Your task to perform on an android device: Check the news Image 0: 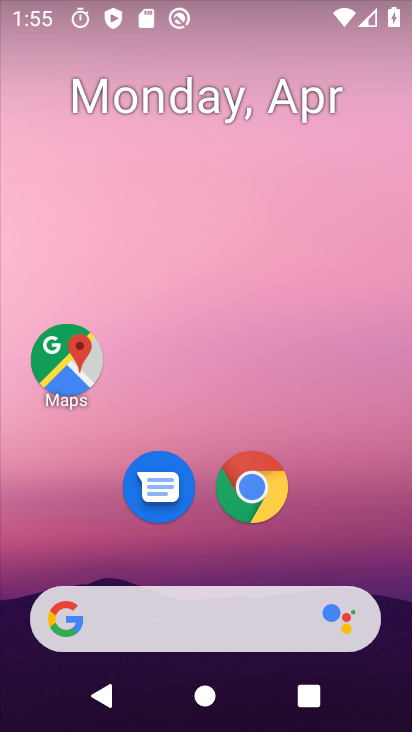
Step 0: drag from (270, 633) to (247, 162)
Your task to perform on an android device: Check the news Image 1: 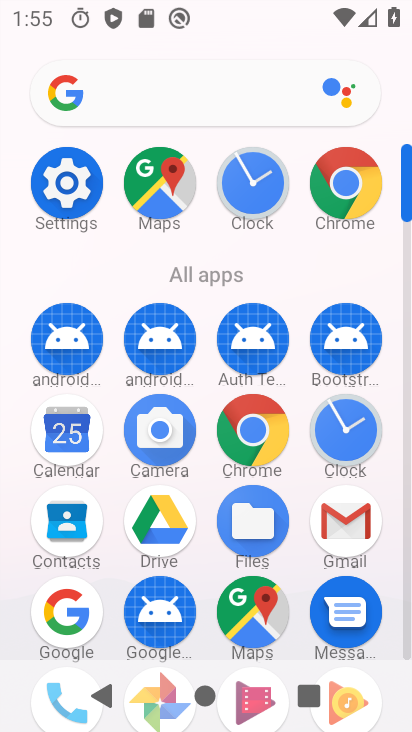
Step 1: click (183, 101)
Your task to perform on an android device: Check the news Image 2: 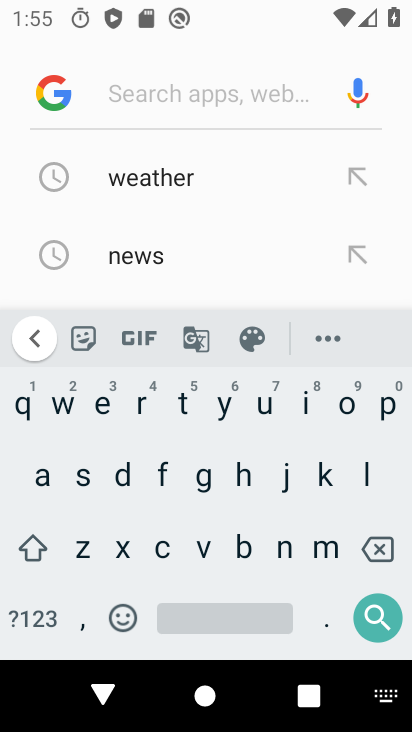
Step 2: click (155, 251)
Your task to perform on an android device: Check the news Image 3: 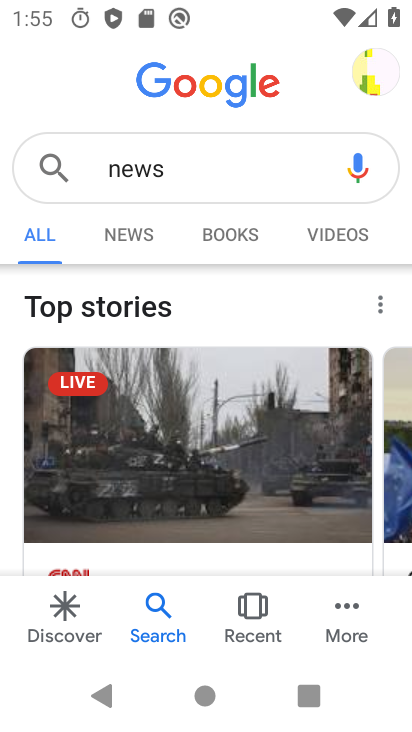
Step 3: task complete